Your task to perform on an android device: Go to Android settings Image 0: 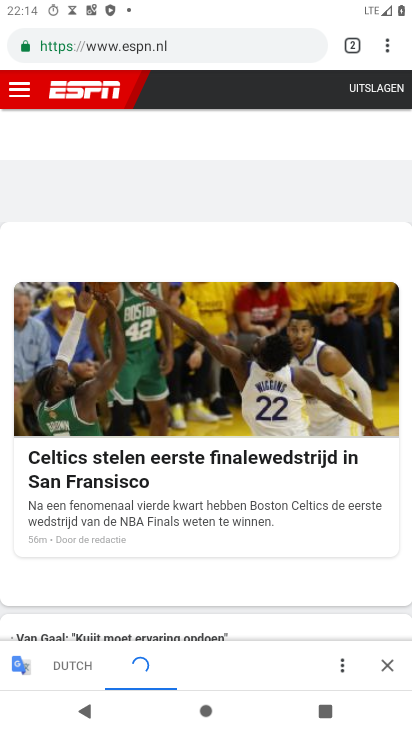
Step 0: press back button
Your task to perform on an android device: Go to Android settings Image 1: 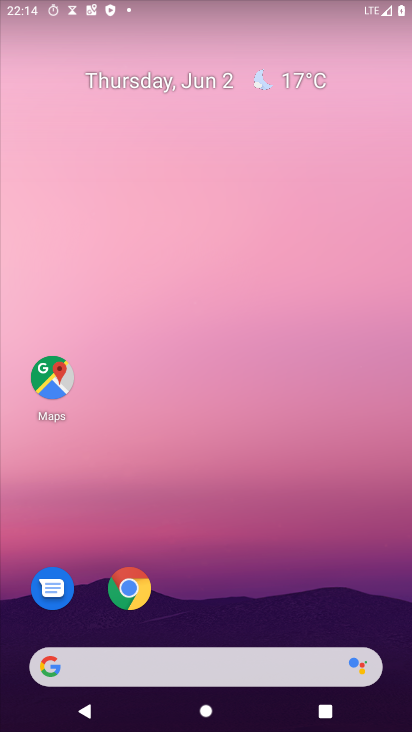
Step 1: drag from (191, 553) to (233, 46)
Your task to perform on an android device: Go to Android settings Image 2: 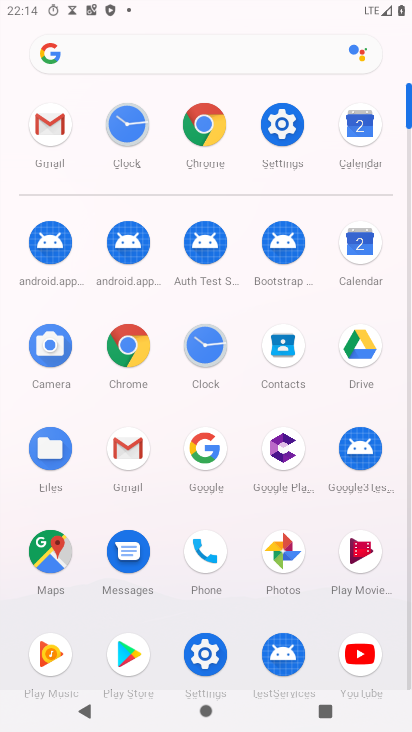
Step 2: click (281, 116)
Your task to perform on an android device: Go to Android settings Image 3: 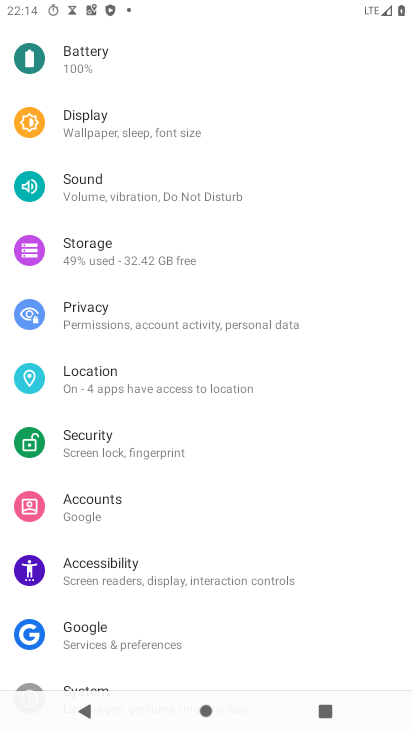
Step 3: drag from (231, 594) to (228, 85)
Your task to perform on an android device: Go to Android settings Image 4: 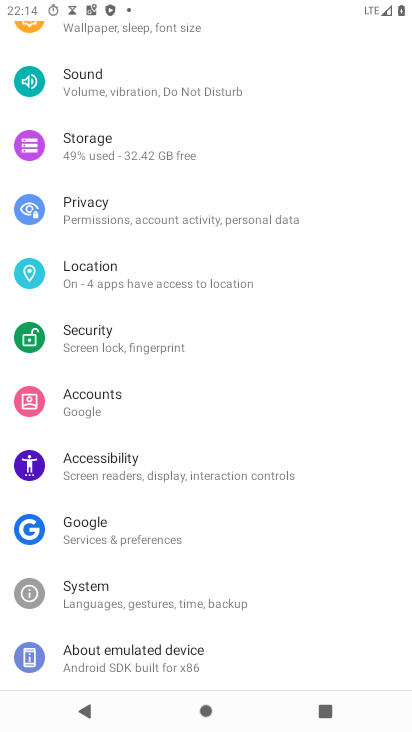
Step 4: click (94, 652)
Your task to perform on an android device: Go to Android settings Image 5: 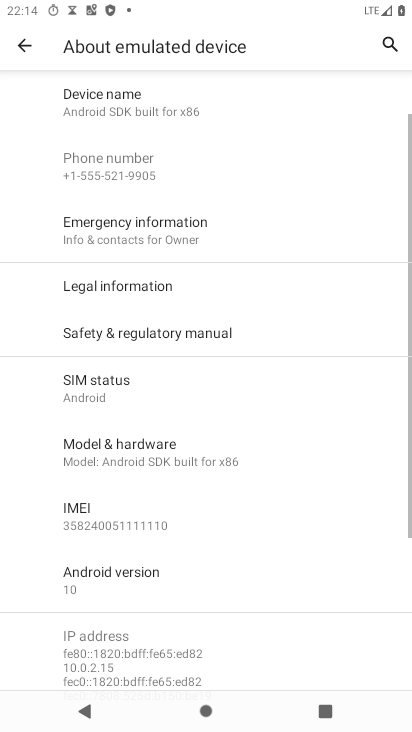
Step 5: task complete